Your task to perform on an android device: change text size in settings app Image 0: 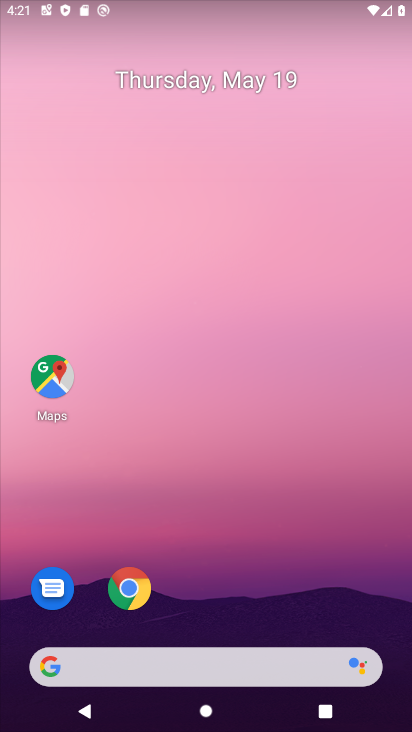
Step 0: drag from (190, 621) to (399, 61)
Your task to perform on an android device: change text size in settings app Image 1: 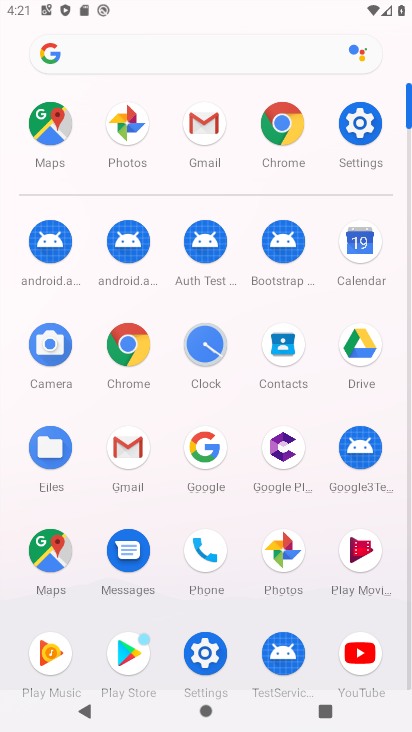
Step 1: click (357, 120)
Your task to perform on an android device: change text size in settings app Image 2: 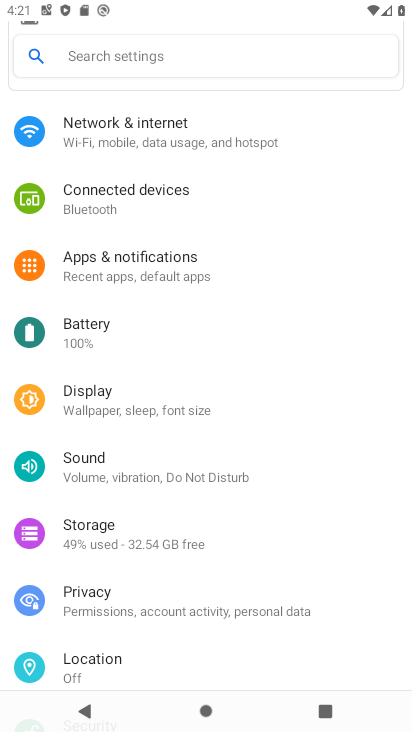
Step 2: drag from (73, 623) to (120, 48)
Your task to perform on an android device: change text size in settings app Image 3: 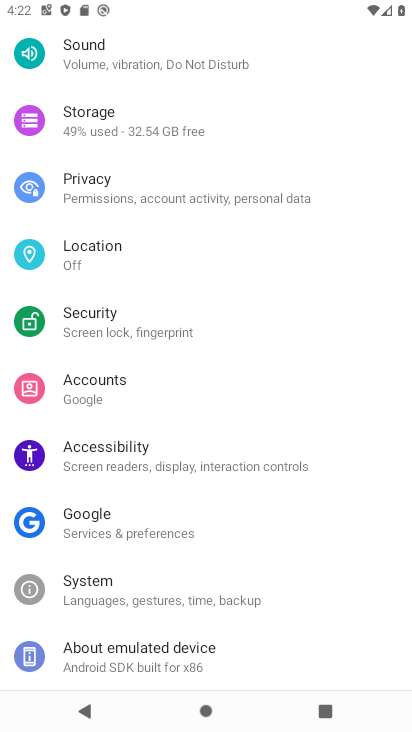
Step 3: drag from (140, 152) to (210, 558)
Your task to perform on an android device: change text size in settings app Image 4: 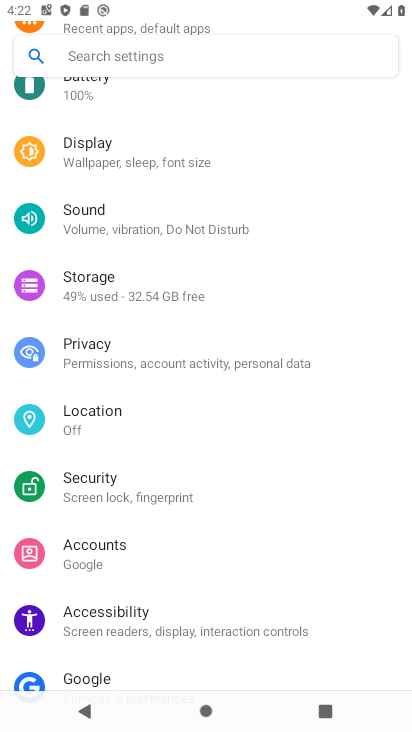
Step 4: click (177, 163)
Your task to perform on an android device: change text size in settings app Image 5: 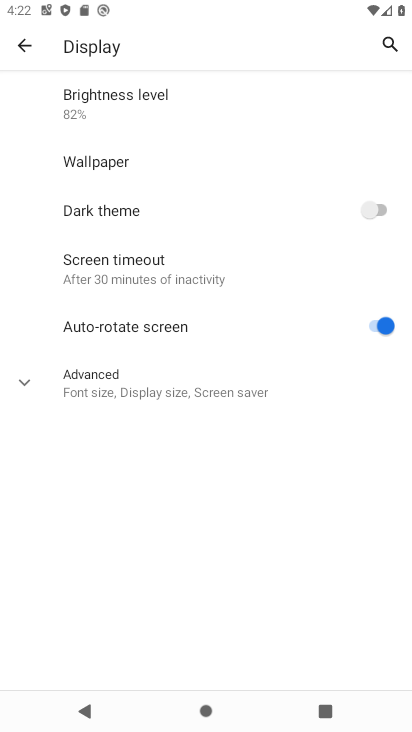
Step 5: click (125, 375)
Your task to perform on an android device: change text size in settings app Image 6: 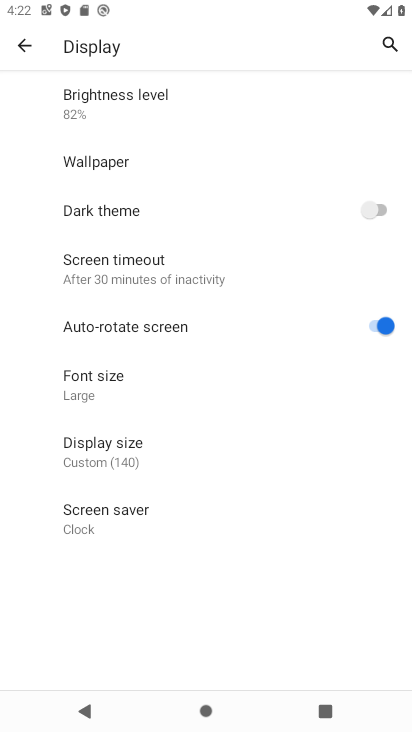
Step 6: click (194, 375)
Your task to perform on an android device: change text size in settings app Image 7: 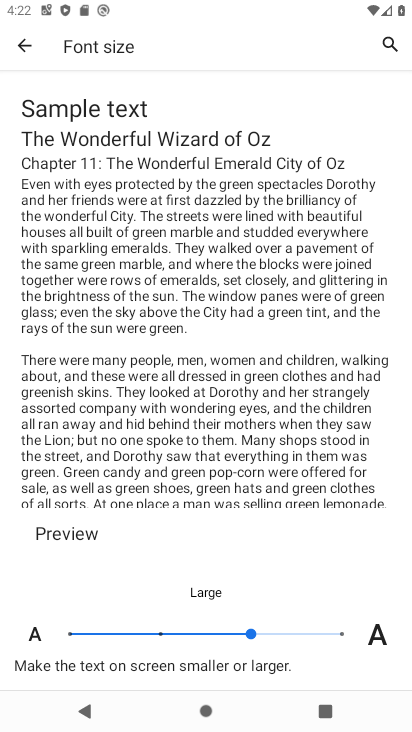
Step 7: click (69, 630)
Your task to perform on an android device: change text size in settings app Image 8: 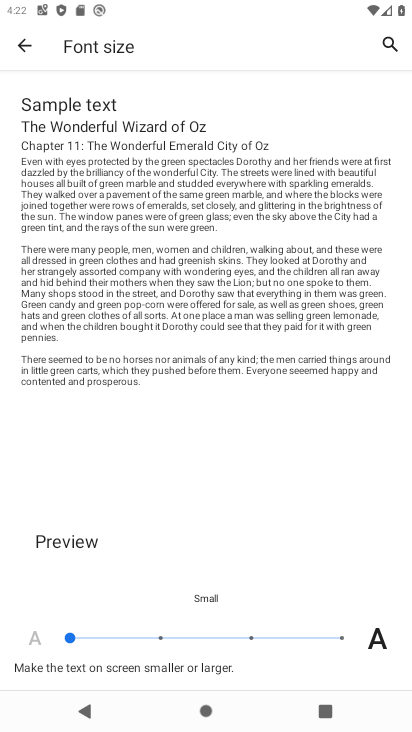
Step 8: task complete